Your task to perform on an android device: Go to Google Image 0: 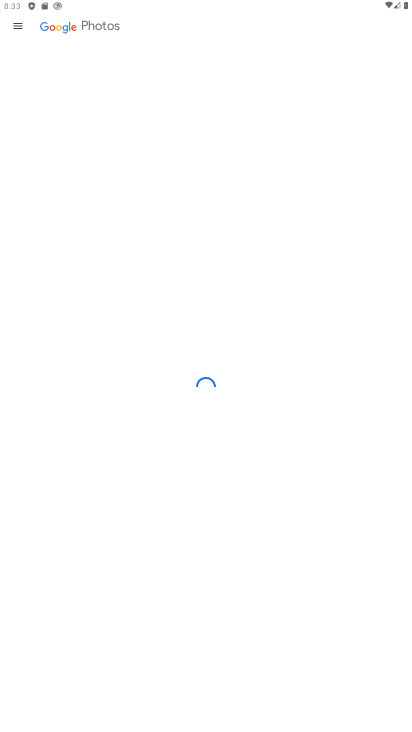
Step 0: press home button
Your task to perform on an android device: Go to Google Image 1: 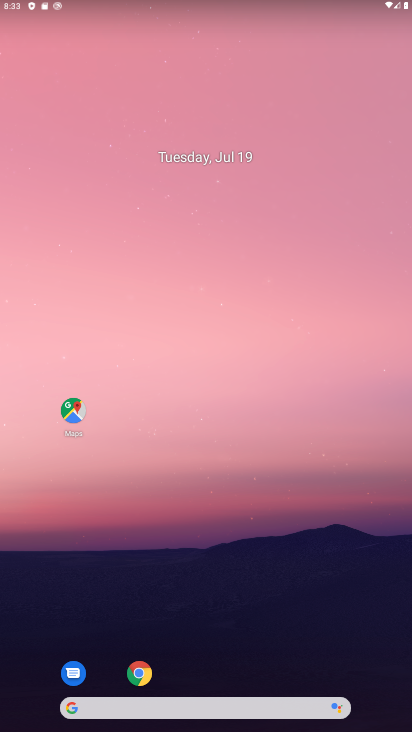
Step 1: drag from (341, 648) to (282, 209)
Your task to perform on an android device: Go to Google Image 2: 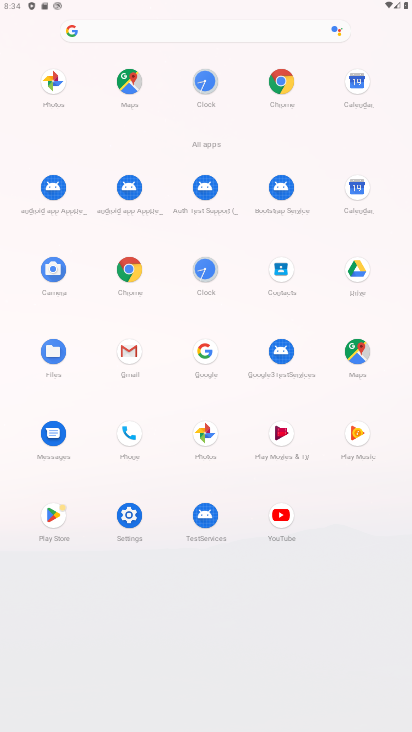
Step 2: click (200, 364)
Your task to perform on an android device: Go to Google Image 3: 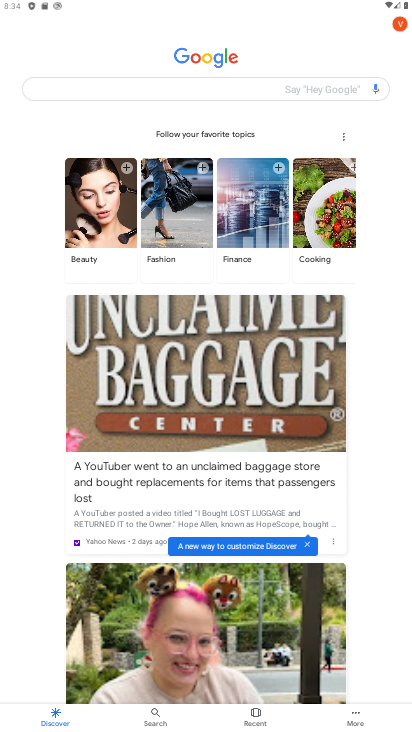
Step 3: task complete